Your task to perform on an android device: toggle airplane mode Image 0: 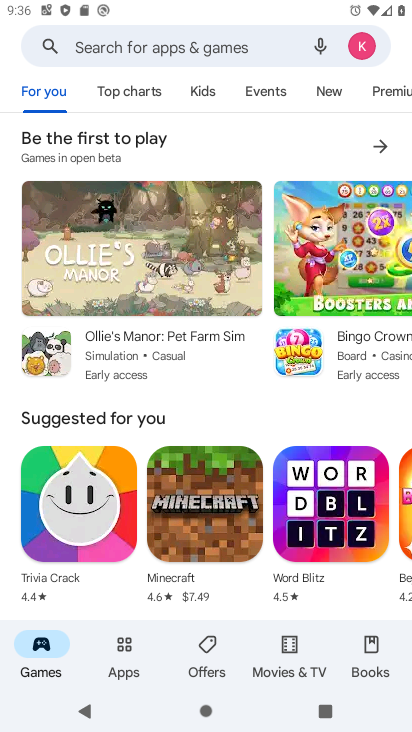
Step 0: press back button
Your task to perform on an android device: toggle airplane mode Image 1: 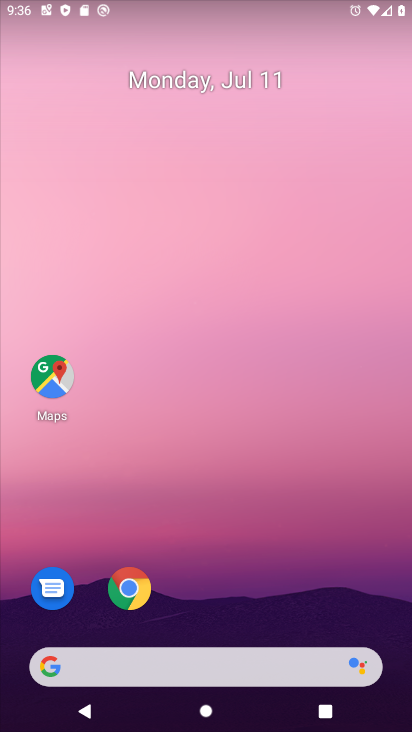
Step 1: drag from (351, 4) to (275, 546)
Your task to perform on an android device: toggle airplane mode Image 2: 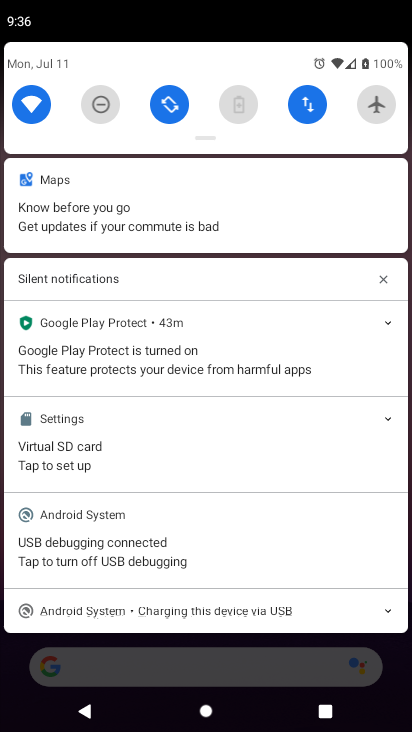
Step 2: click (376, 109)
Your task to perform on an android device: toggle airplane mode Image 3: 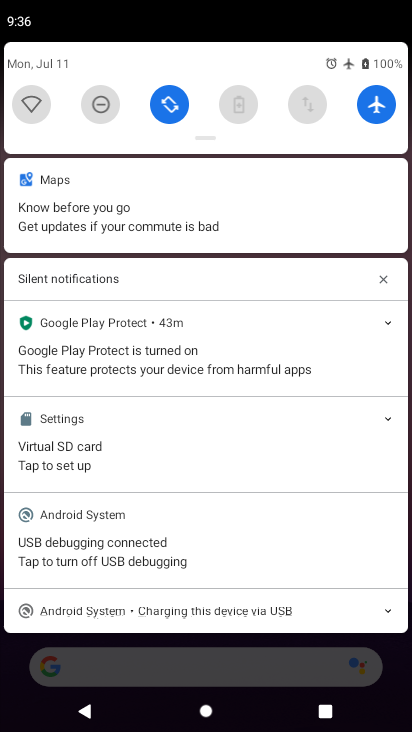
Step 3: task complete